Your task to perform on an android device: open wifi settings Image 0: 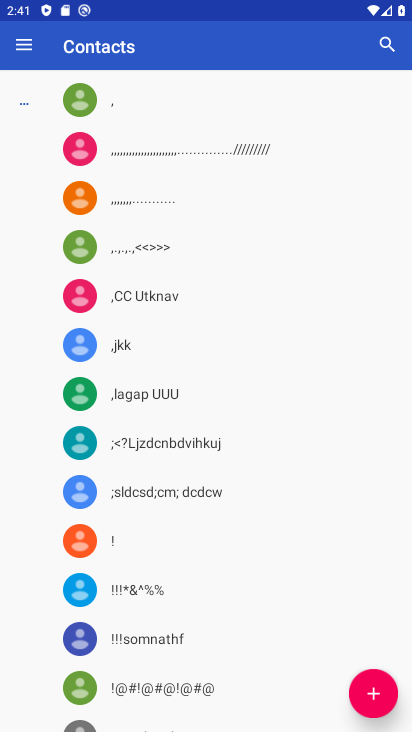
Step 0: press home button
Your task to perform on an android device: open wifi settings Image 1: 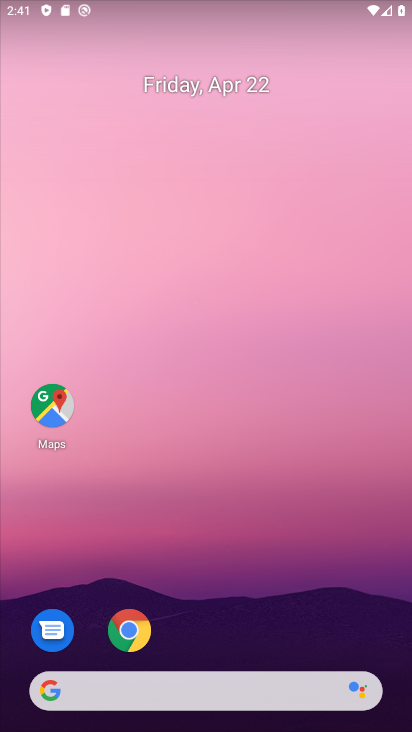
Step 1: drag from (327, 439) to (348, 148)
Your task to perform on an android device: open wifi settings Image 2: 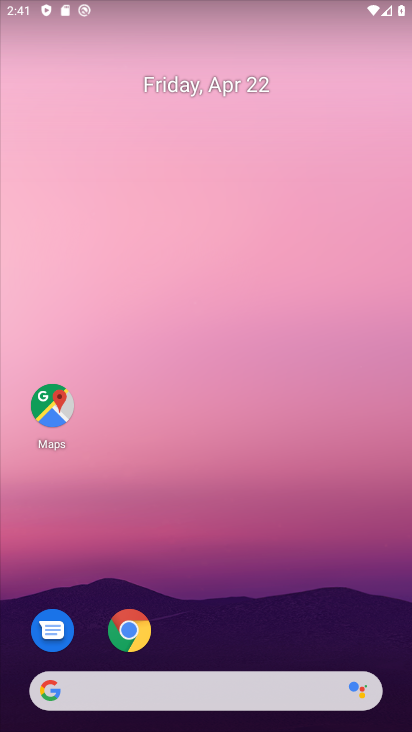
Step 2: drag from (362, 582) to (353, 110)
Your task to perform on an android device: open wifi settings Image 3: 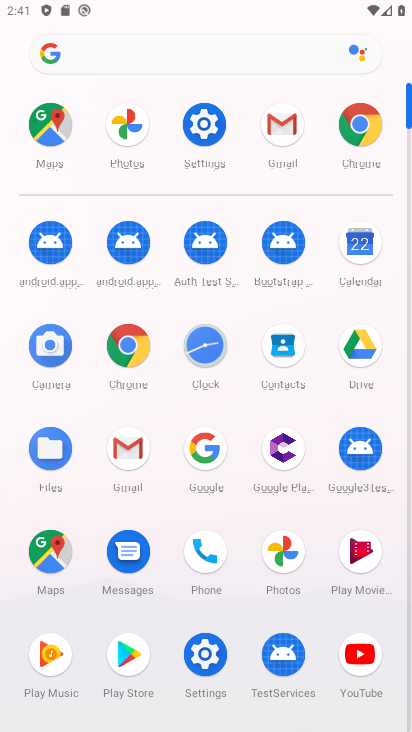
Step 3: click (190, 661)
Your task to perform on an android device: open wifi settings Image 4: 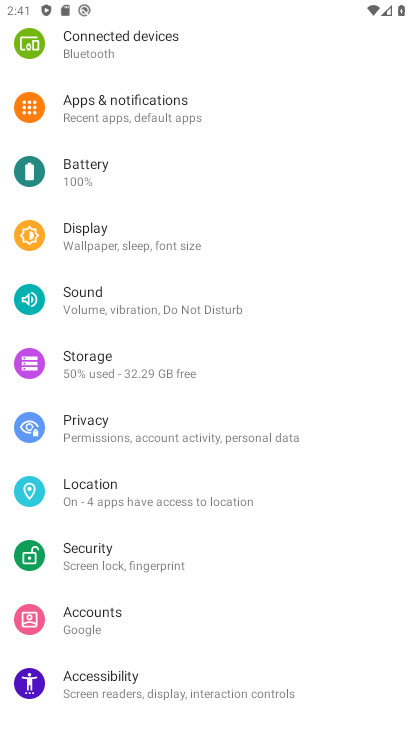
Step 4: drag from (284, 188) to (278, 598)
Your task to perform on an android device: open wifi settings Image 5: 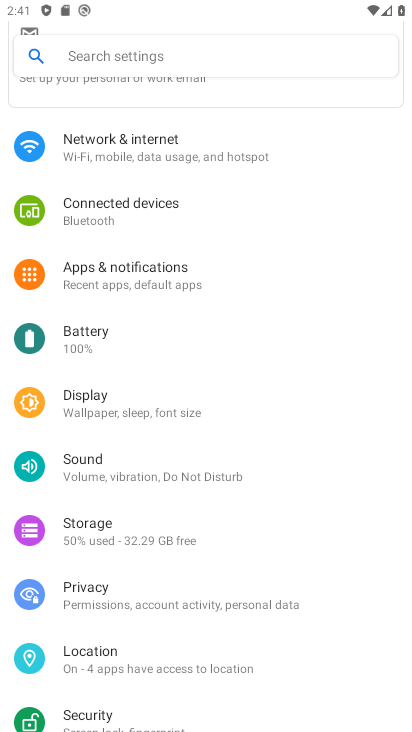
Step 5: click (86, 138)
Your task to perform on an android device: open wifi settings Image 6: 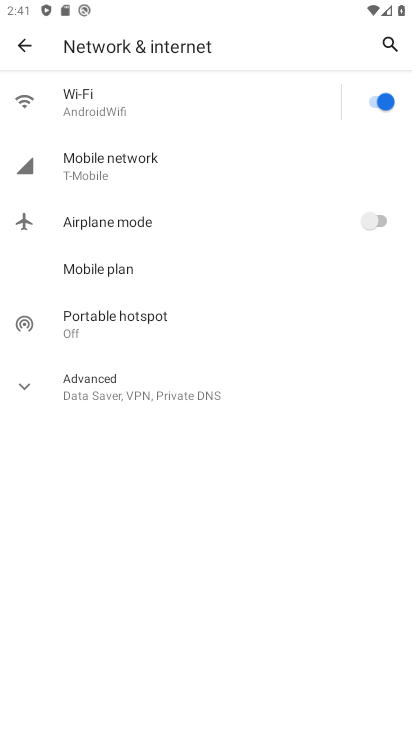
Step 6: click (104, 107)
Your task to perform on an android device: open wifi settings Image 7: 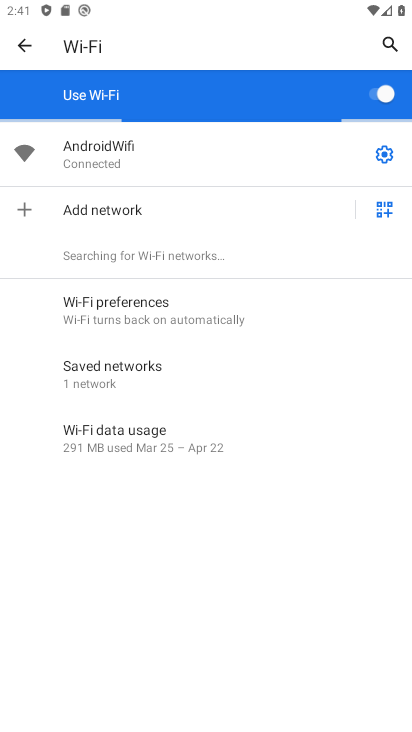
Step 7: click (383, 158)
Your task to perform on an android device: open wifi settings Image 8: 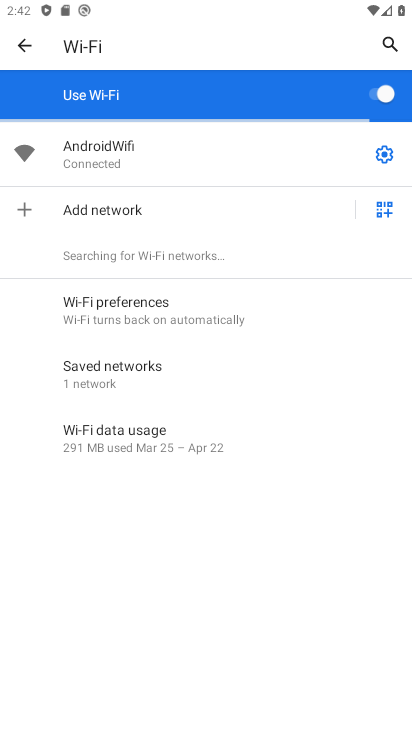
Step 8: task complete